Your task to perform on an android device: toggle translation in the chrome app Image 0: 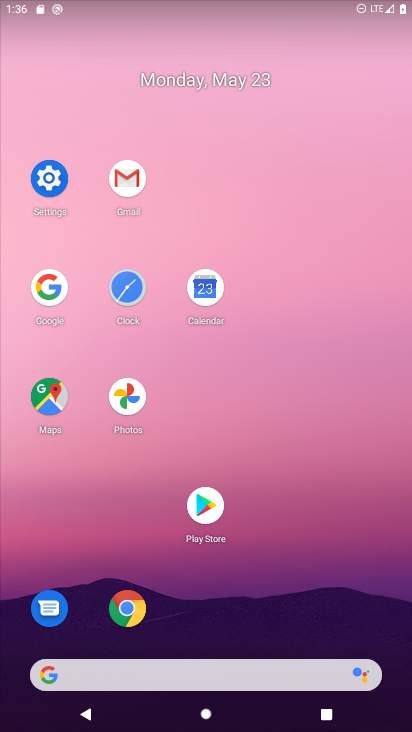
Step 0: click (135, 609)
Your task to perform on an android device: toggle translation in the chrome app Image 1: 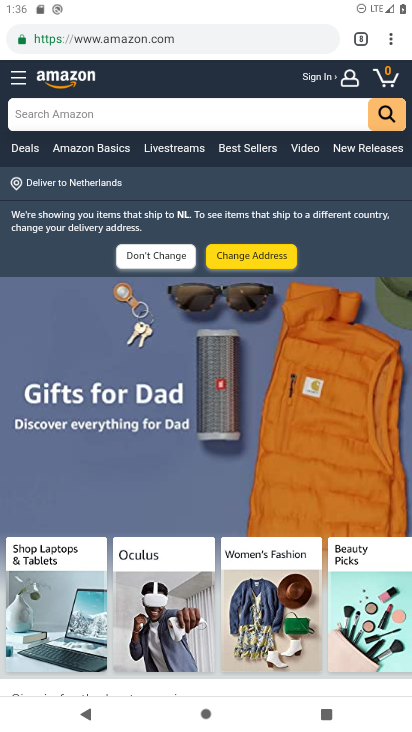
Step 1: click (385, 46)
Your task to perform on an android device: toggle translation in the chrome app Image 2: 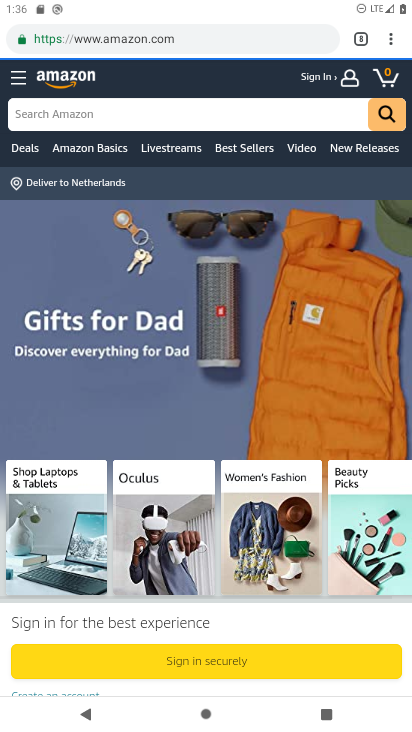
Step 2: click (392, 42)
Your task to perform on an android device: toggle translation in the chrome app Image 3: 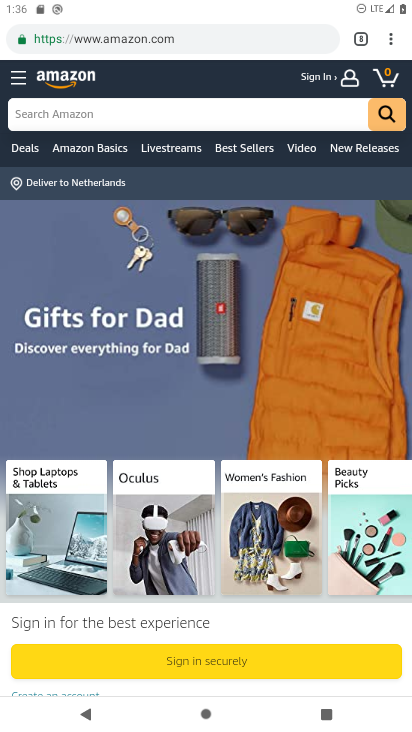
Step 3: click (396, 42)
Your task to perform on an android device: toggle translation in the chrome app Image 4: 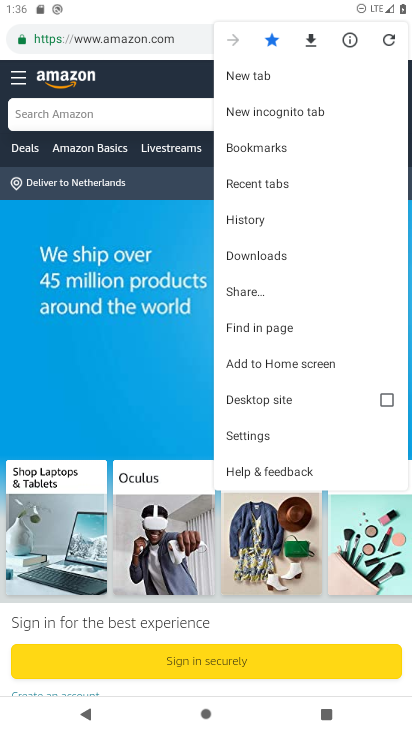
Step 4: click (285, 425)
Your task to perform on an android device: toggle translation in the chrome app Image 5: 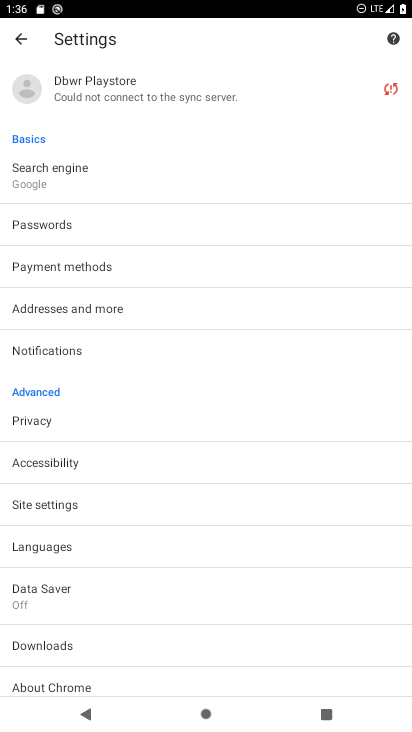
Step 5: click (143, 544)
Your task to perform on an android device: toggle translation in the chrome app Image 6: 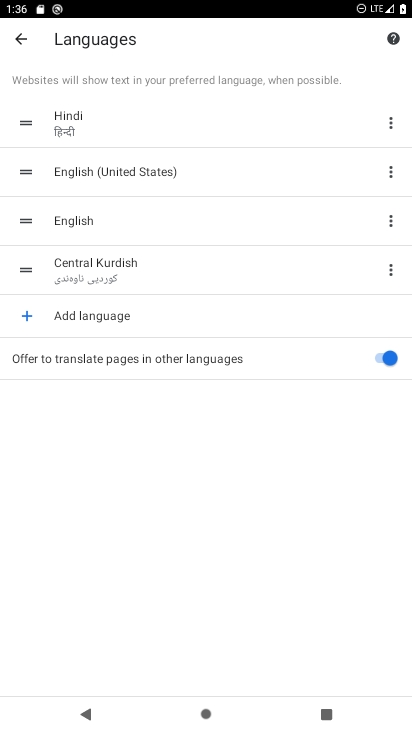
Step 6: click (372, 362)
Your task to perform on an android device: toggle translation in the chrome app Image 7: 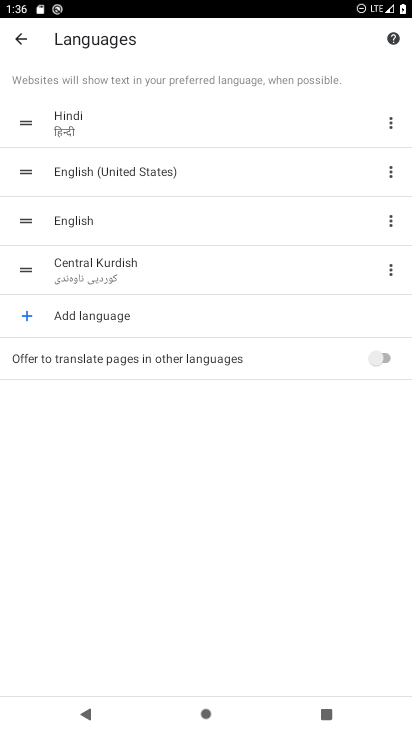
Step 7: task complete